Your task to perform on an android device: Show the shopping cart on newegg.com. Search for "razer huntsman" on newegg.com, select the first entry, add it to the cart, then select checkout. Image 0: 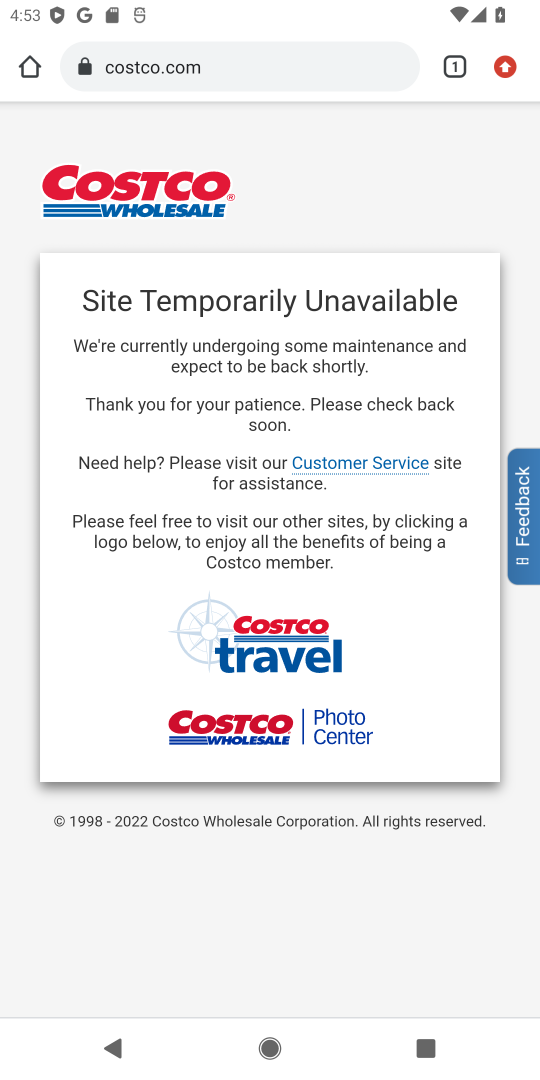
Step 0: task complete